Your task to perform on an android device: When is my next appointment? Image 0: 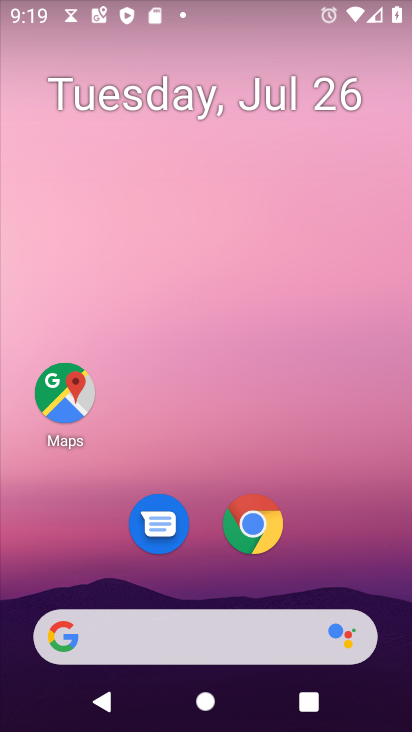
Step 0: drag from (163, 633) to (284, 174)
Your task to perform on an android device: When is my next appointment? Image 1: 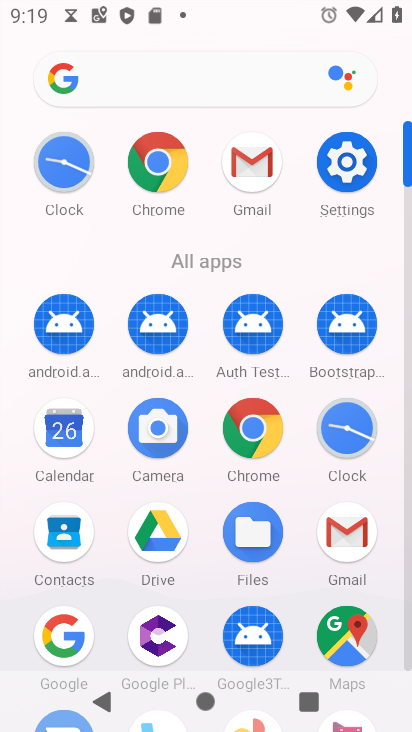
Step 1: click (71, 428)
Your task to perform on an android device: When is my next appointment? Image 2: 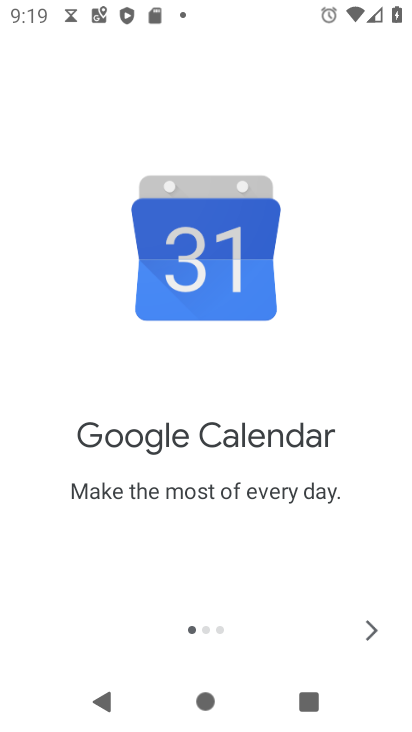
Step 2: click (372, 625)
Your task to perform on an android device: When is my next appointment? Image 3: 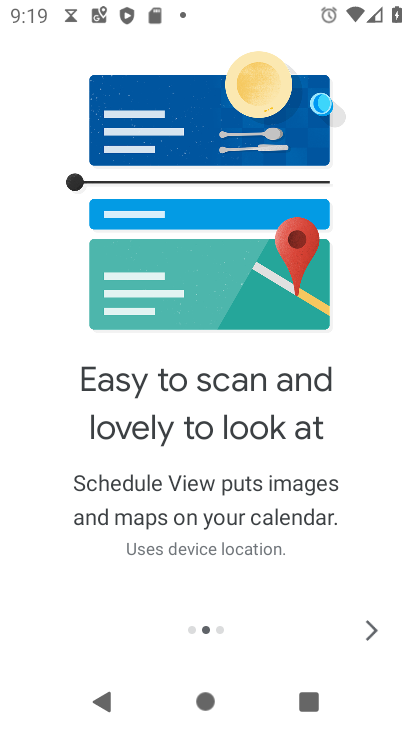
Step 3: click (372, 624)
Your task to perform on an android device: When is my next appointment? Image 4: 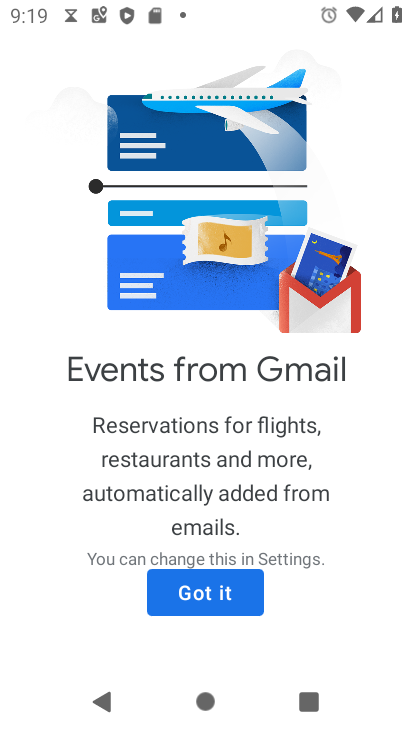
Step 4: click (243, 605)
Your task to perform on an android device: When is my next appointment? Image 5: 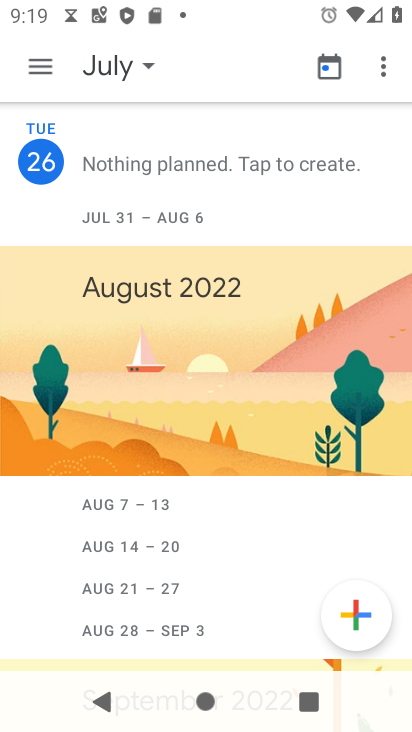
Step 5: task complete